Your task to perform on an android device: open app "Clock" (install if not already installed) Image 0: 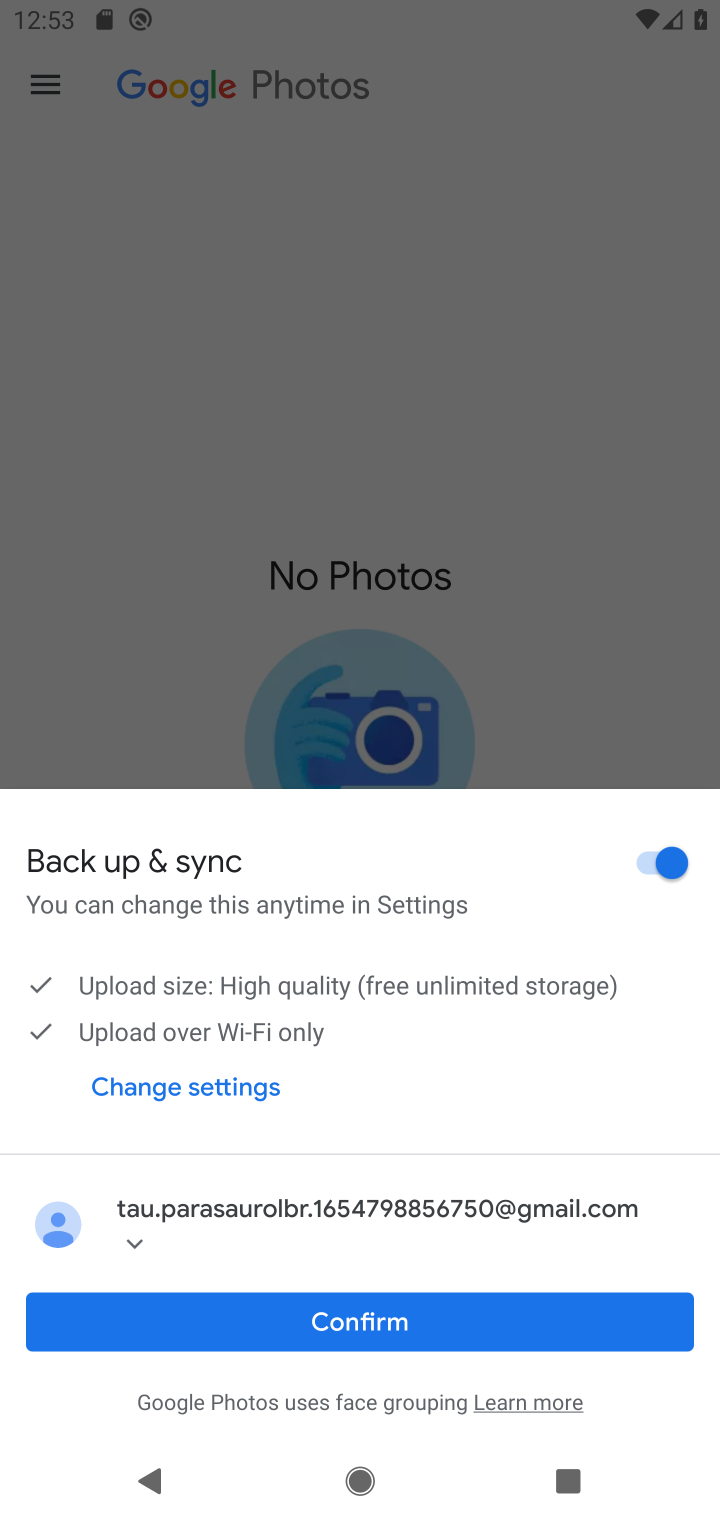
Step 0: press home button
Your task to perform on an android device: open app "Clock" (install if not already installed) Image 1: 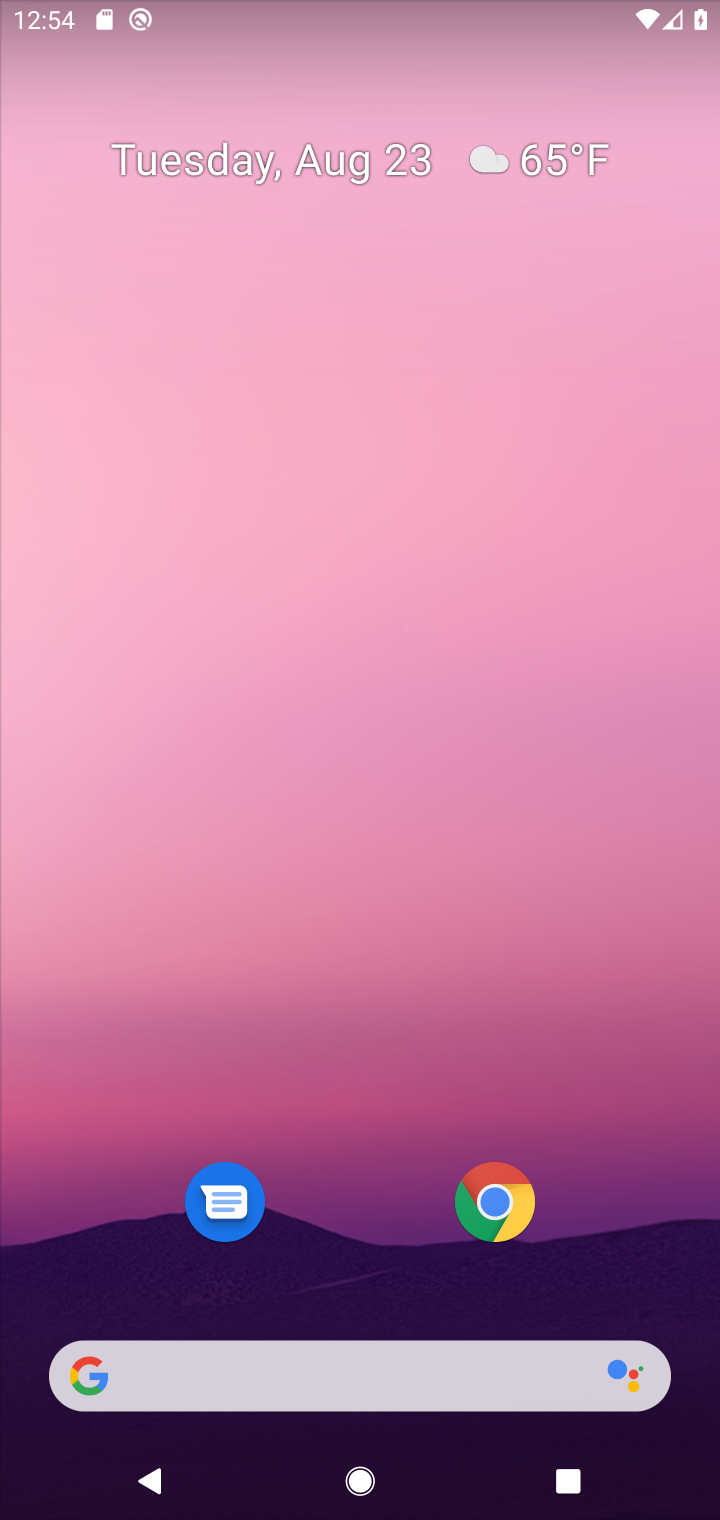
Step 1: drag from (291, 217) to (281, 88)
Your task to perform on an android device: open app "Clock" (install if not already installed) Image 2: 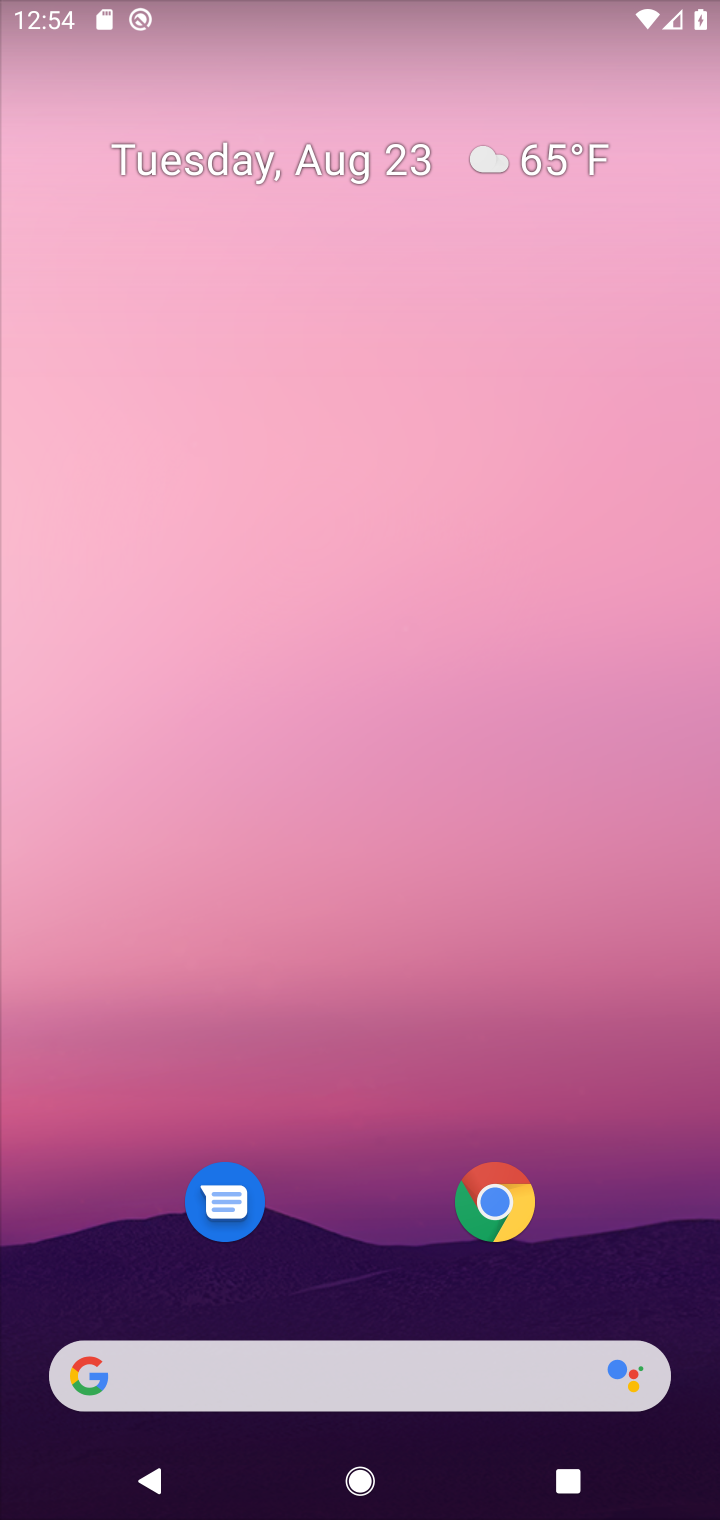
Step 2: drag from (344, 1374) to (325, 138)
Your task to perform on an android device: open app "Clock" (install if not already installed) Image 3: 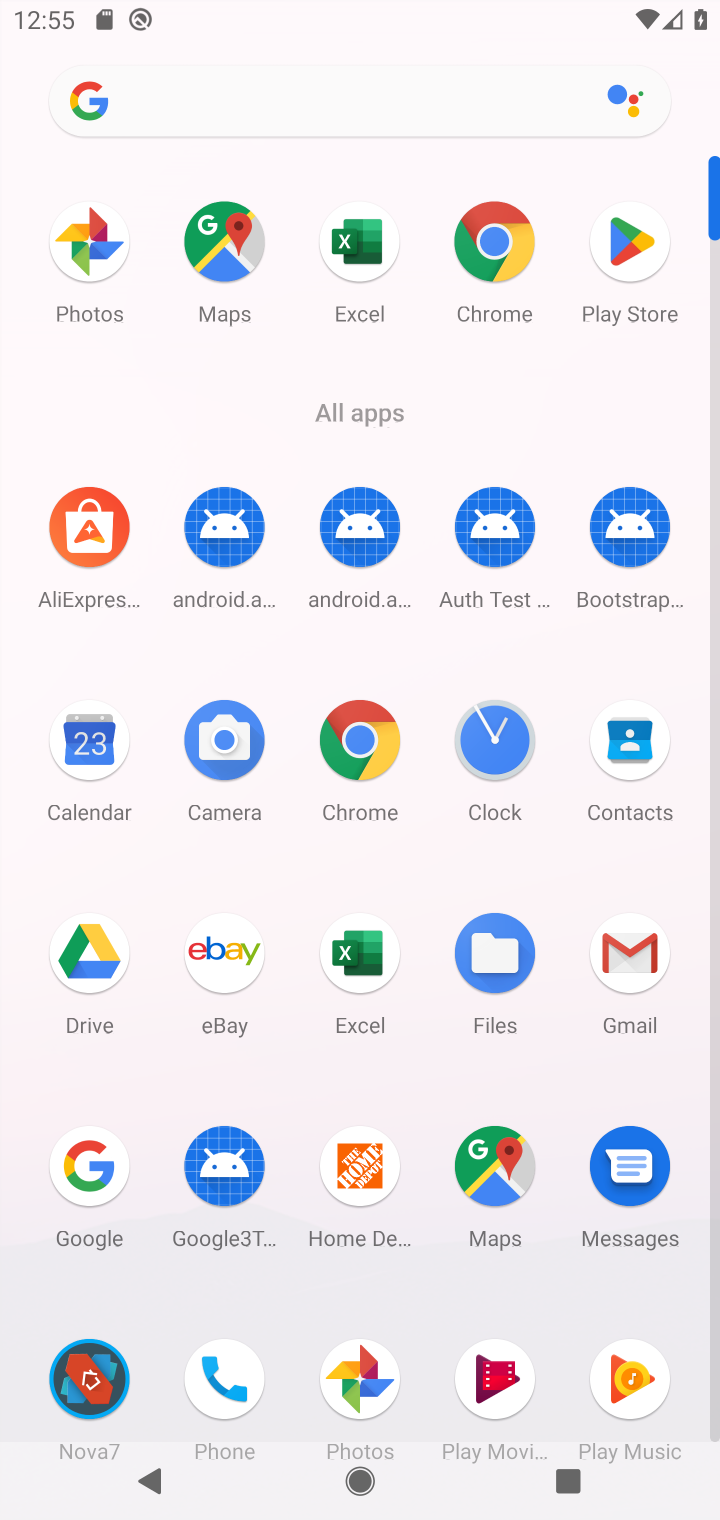
Step 3: click (649, 264)
Your task to perform on an android device: open app "Clock" (install if not already installed) Image 4: 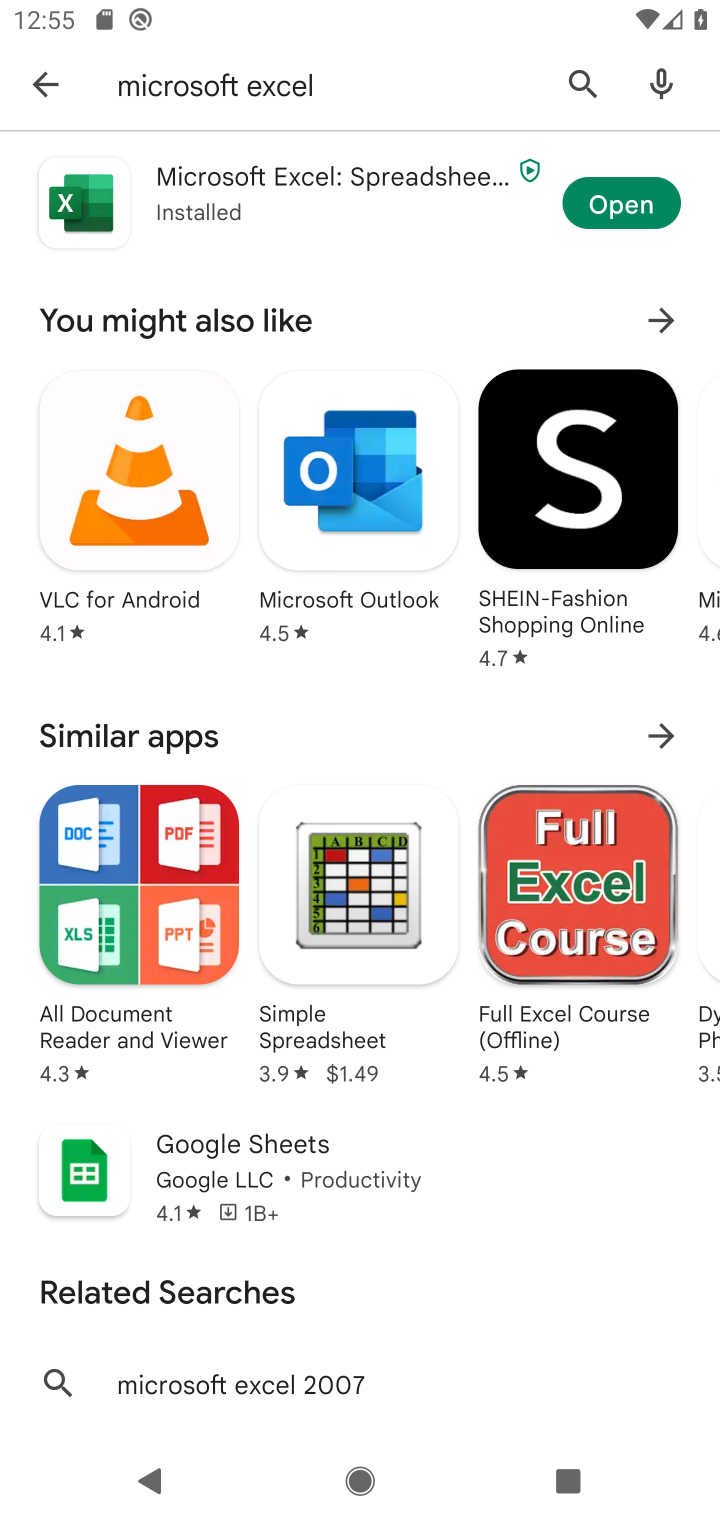
Step 4: click (590, 84)
Your task to perform on an android device: open app "Clock" (install if not already installed) Image 5: 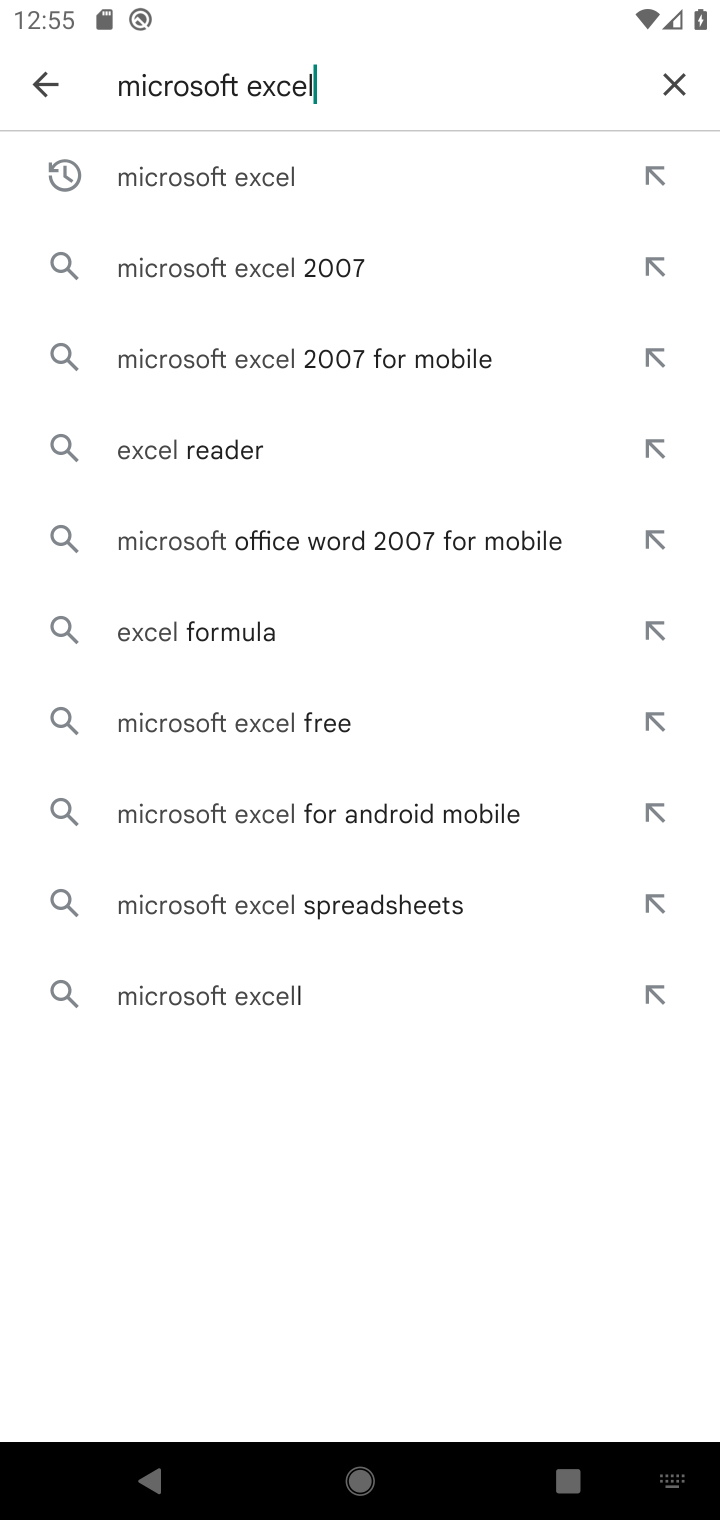
Step 5: click (684, 76)
Your task to perform on an android device: open app "Clock" (install if not already installed) Image 6: 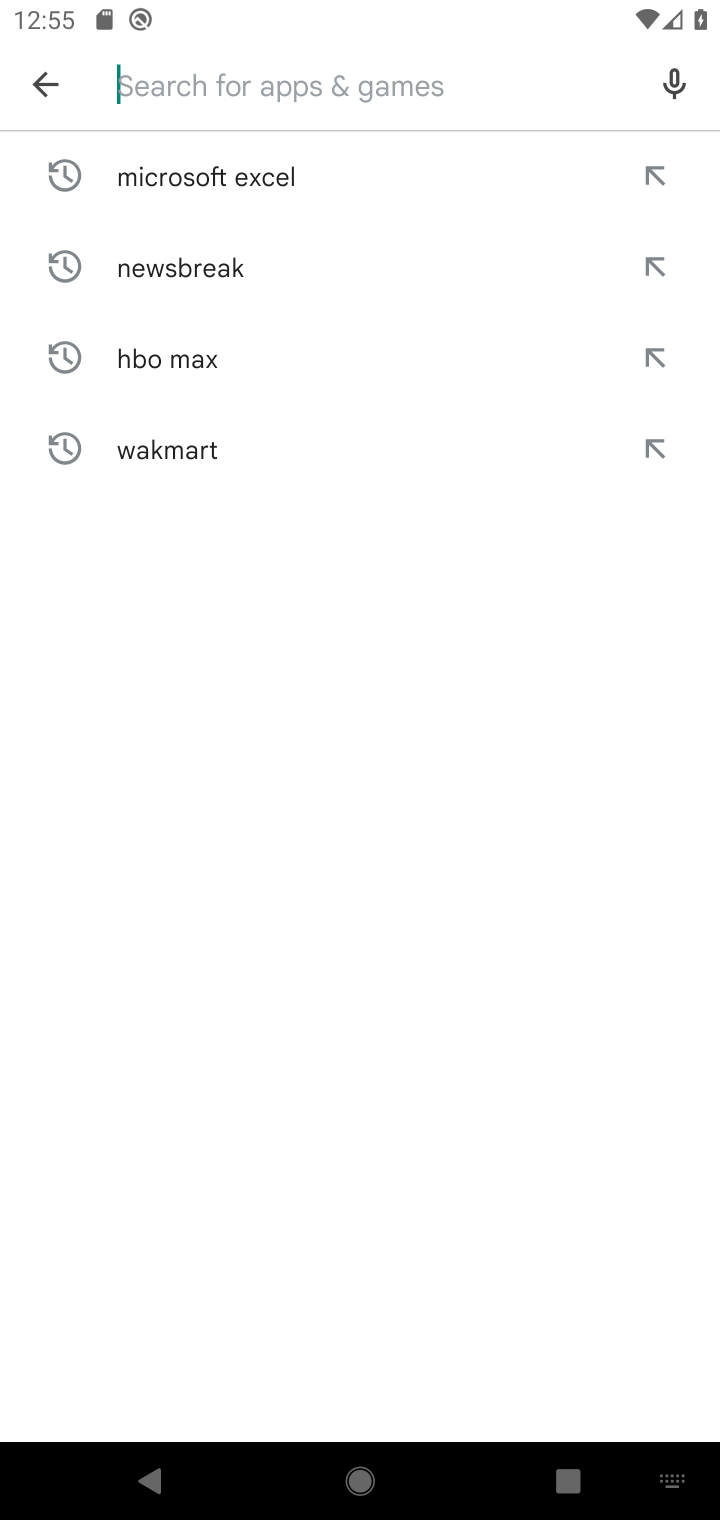
Step 6: type "clock"
Your task to perform on an android device: open app "Clock" (install if not already installed) Image 7: 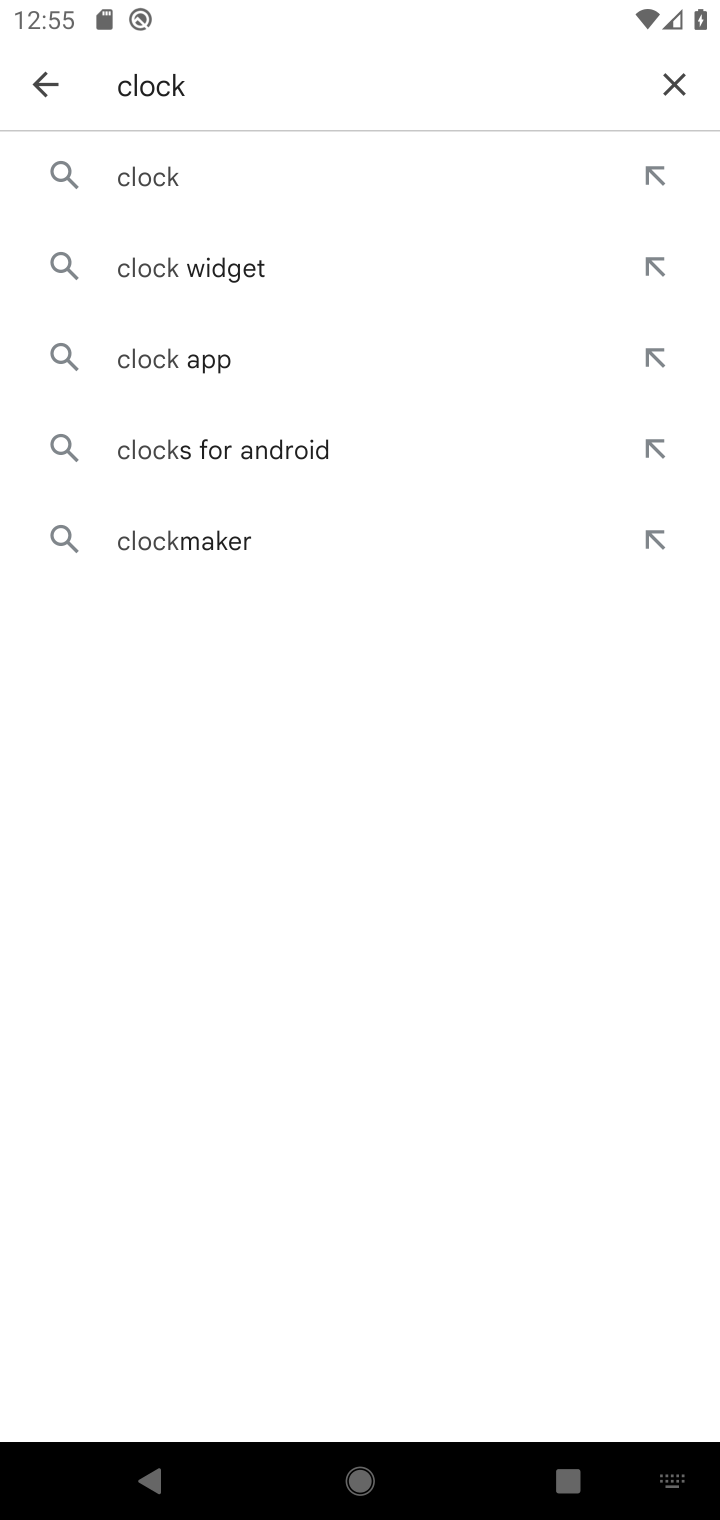
Step 7: click (173, 190)
Your task to perform on an android device: open app "Clock" (install if not already installed) Image 8: 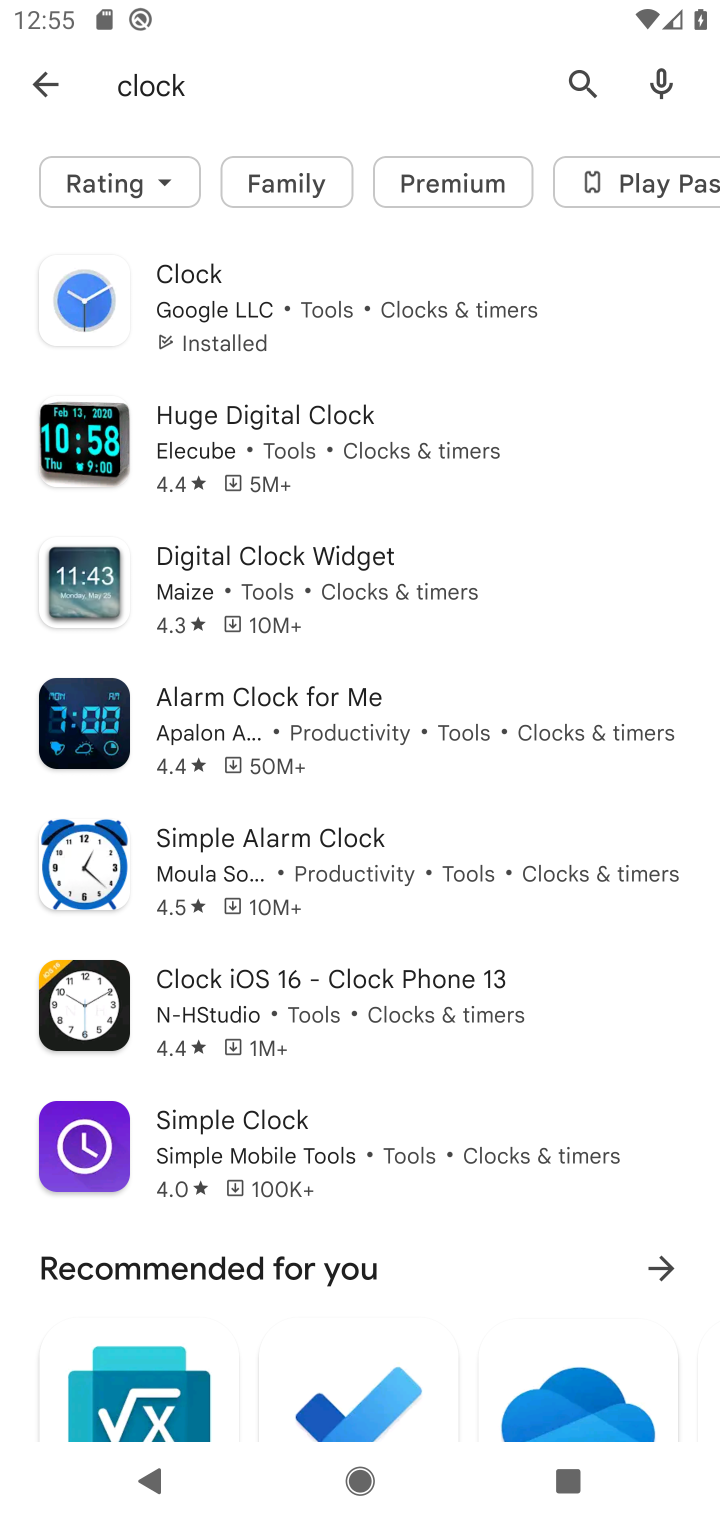
Step 8: click (257, 293)
Your task to perform on an android device: open app "Clock" (install if not already installed) Image 9: 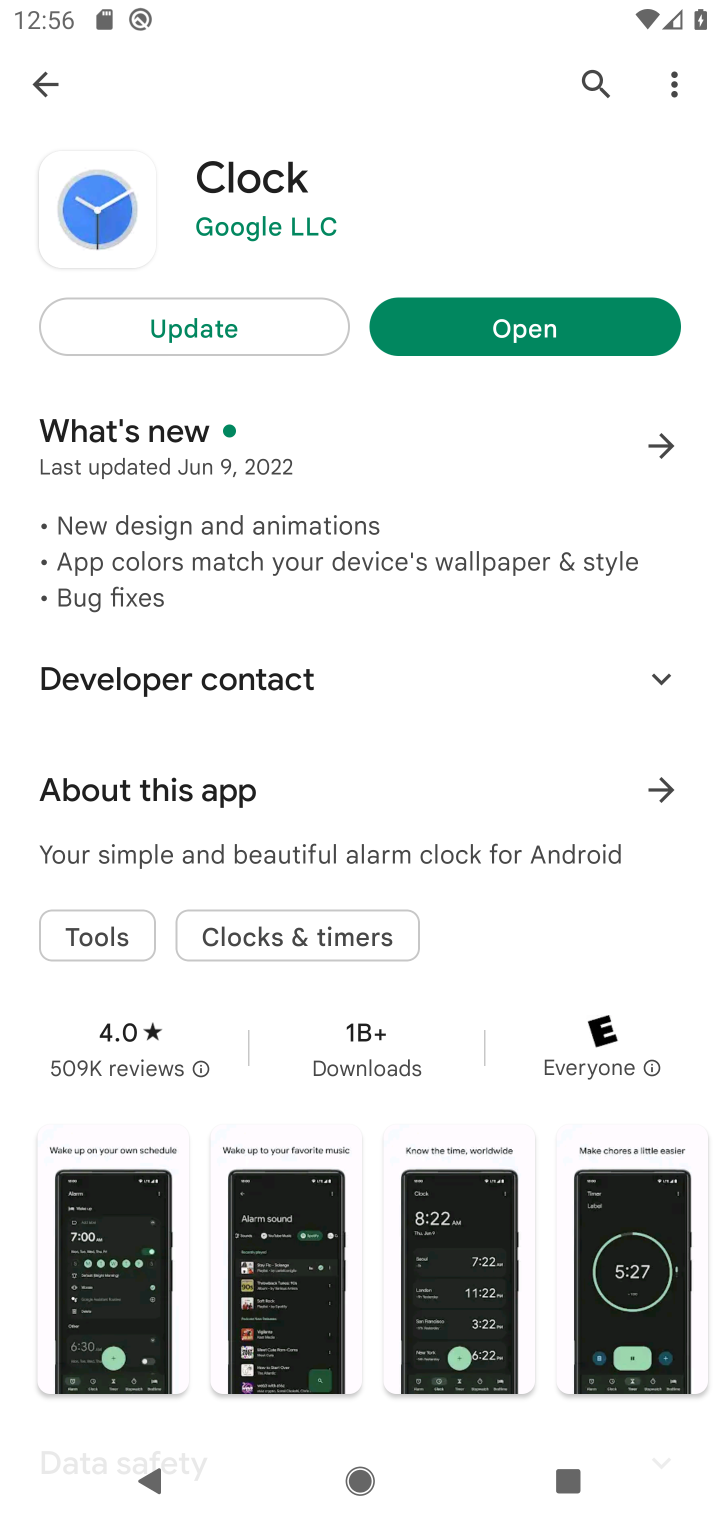
Step 9: click (437, 337)
Your task to perform on an android device: open app "Clock" (install if not already installed) Image 10: 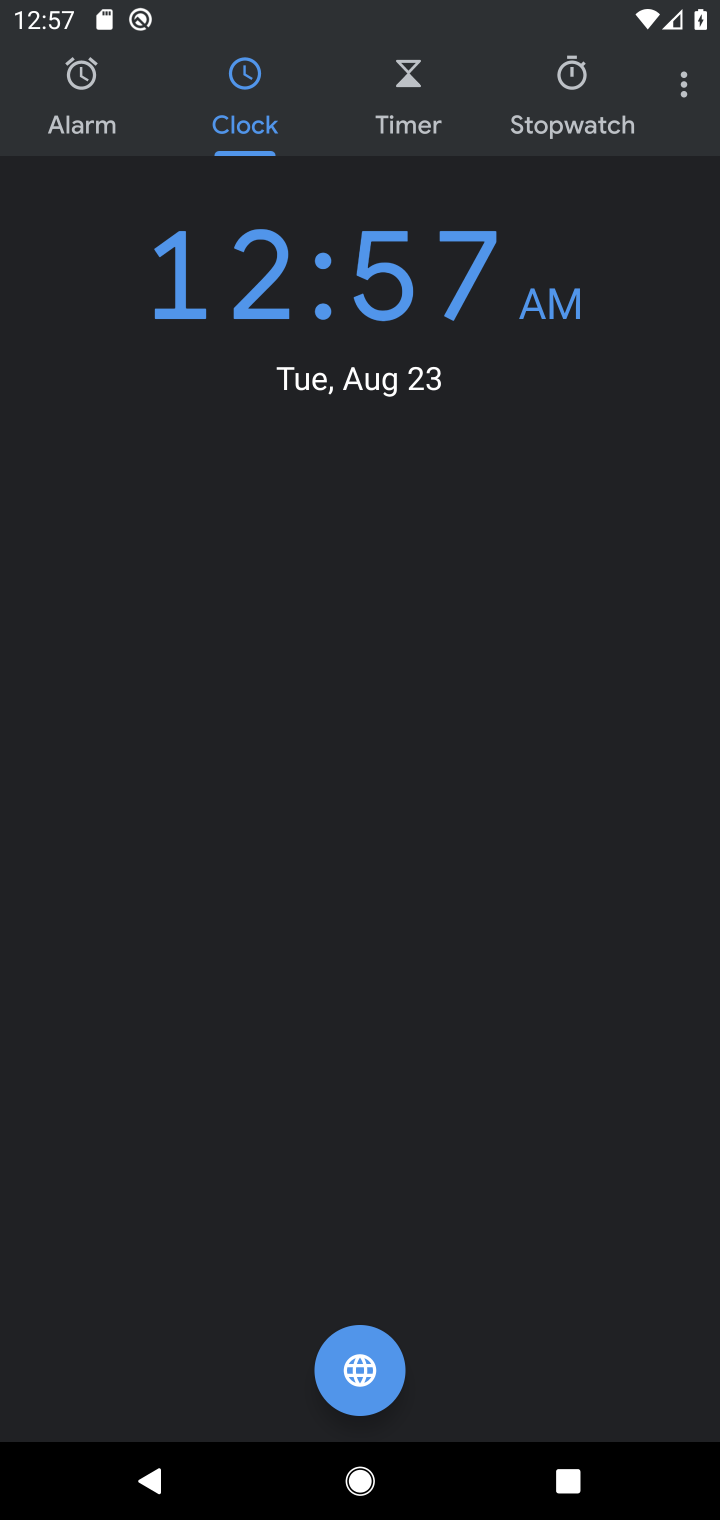
Step 10: task complete